Your task to perform on an android device: Open network settings Image 0: 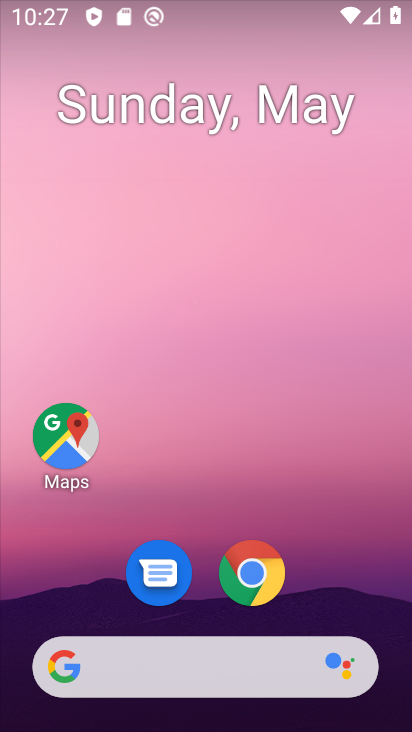
Step 0: drag from (348, 530) to (291, 17)
Your task to perform on an android device: Open network settings Image 1: 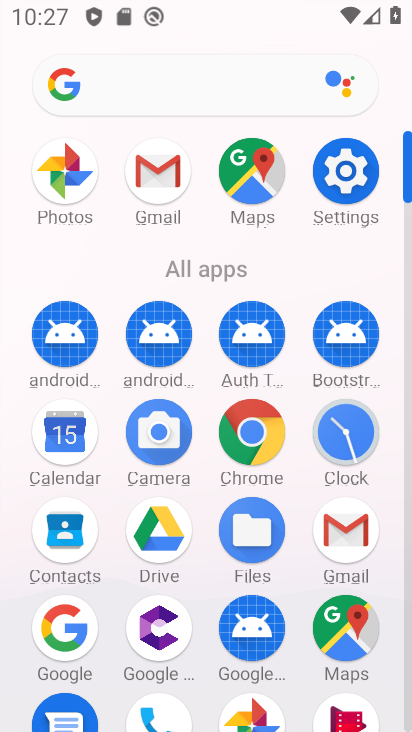
Step 1: click (349, 162)
Your task to perform on an android device: Open network settings Image 2: 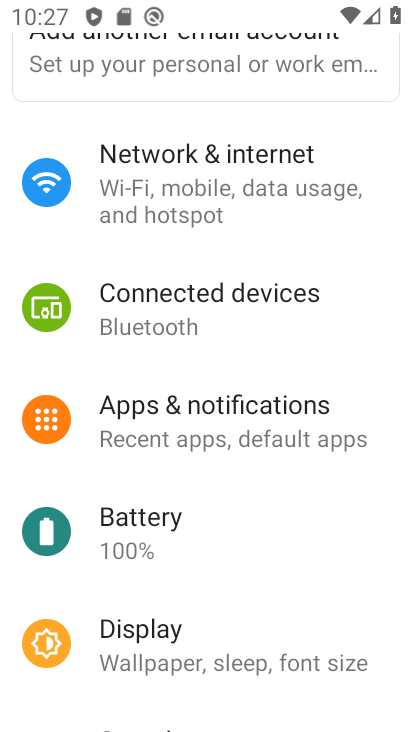
Step 2: click (305, 173)
Your task to perform on an android device: Open network settings Image 3: 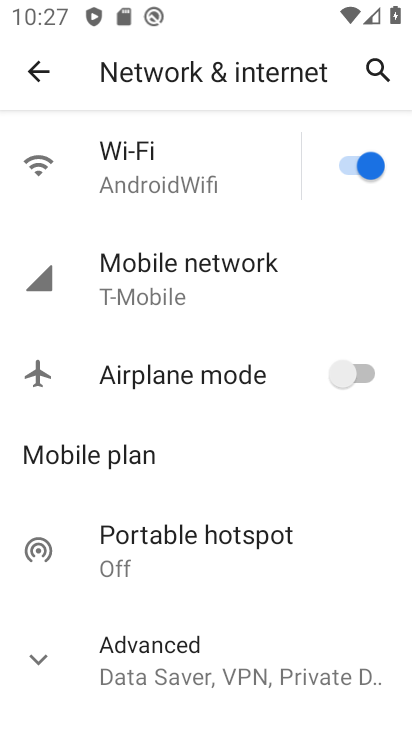
Step 3: task complete